Your task to perform on an android device: Open Chrome and go to settings Image 0: 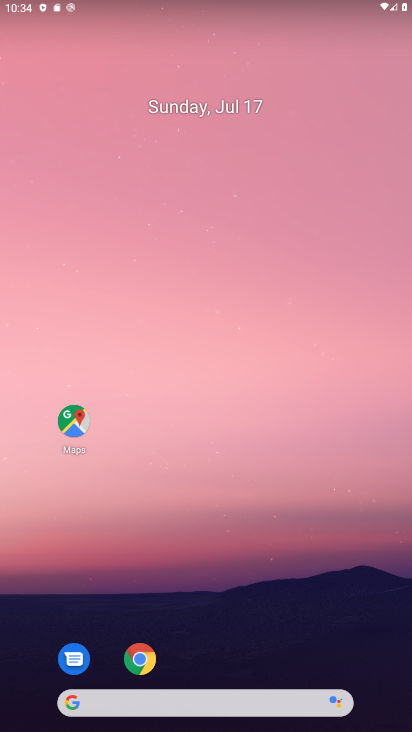
Step 0: click (143, 645)
Your task to perform on an android device: Open Chrome and go to settings Image 1: 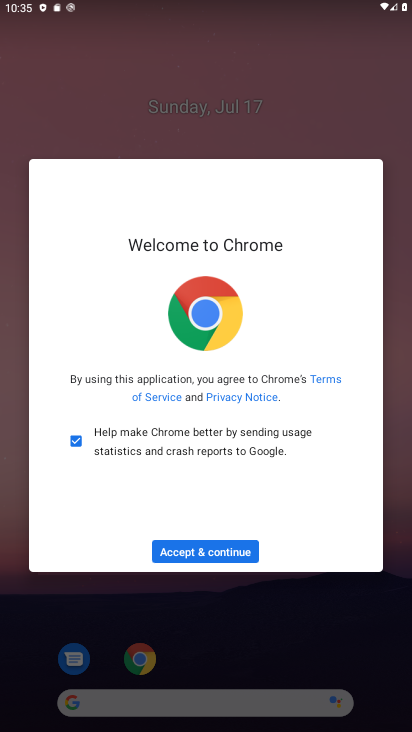
Step 1: click (233, 551)
Your task to perform on an android device: Open Chrome and go to settings Image 2: 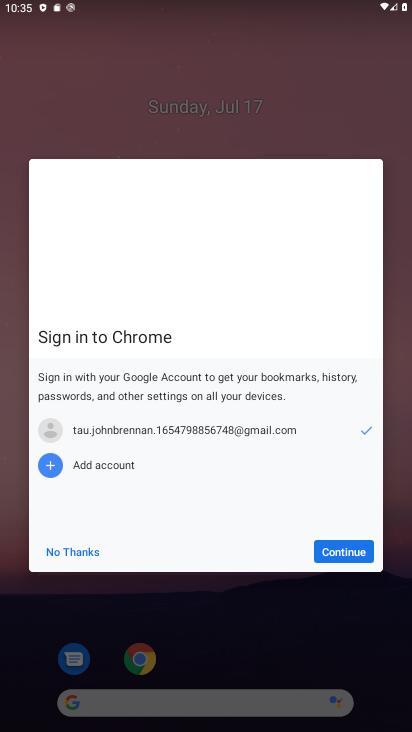
Step 2: click (372, 541)
Your task to perform on an android device: Open Chrome and go to settings Image 3: 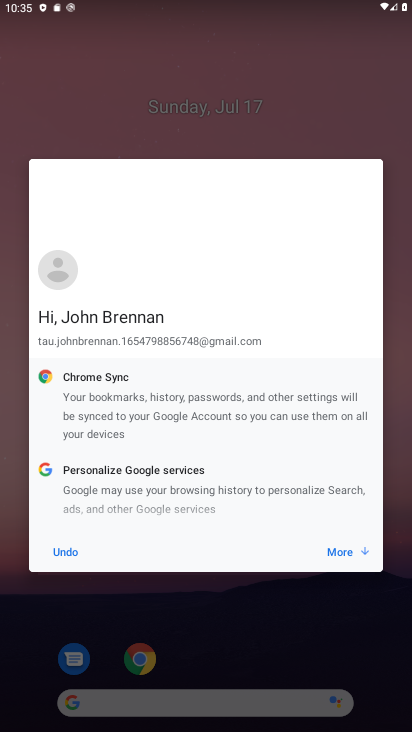
Step 3: click (372, 541)
Your task to perform on an android device: Open Chrome and go to settings Image 4: 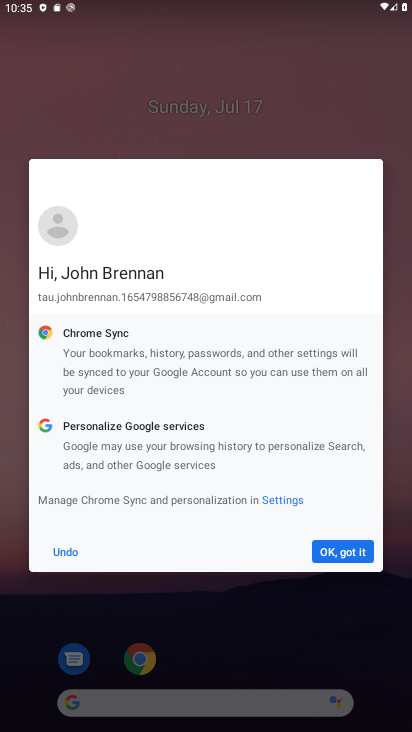
Step 4: click (372, 541)
Your task to perform on an android device: Open Chrome and go to settings Image 5: 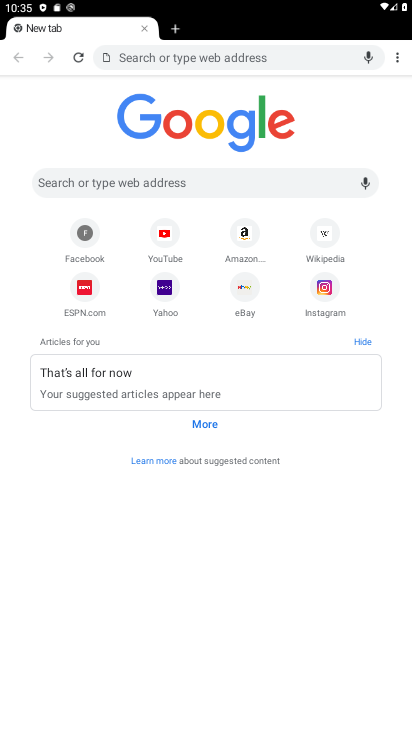
Step 5: click (392, 60)
Your task to perform on an android device: Open Chrome and go to settings Image 6: 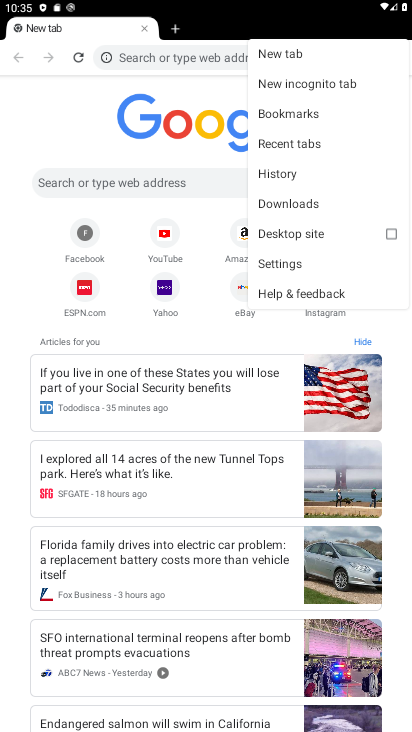
Step 6: click (284, 263)
Your task to perform on an android device: Open Chrome and go to settings Image 7: 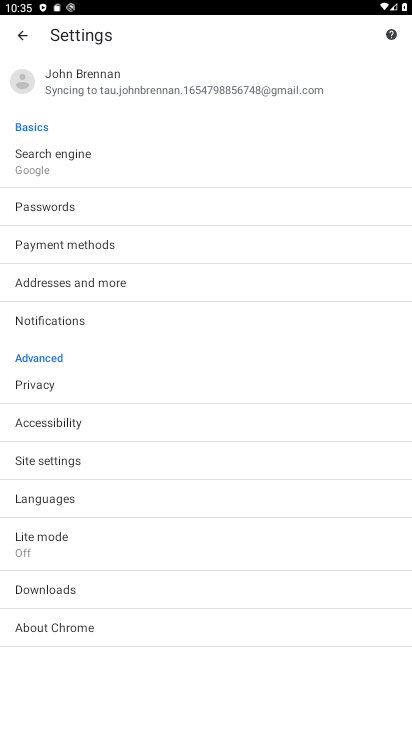
Step 7: task complete